Your task to perform on an android device: change the clock style Image 0: 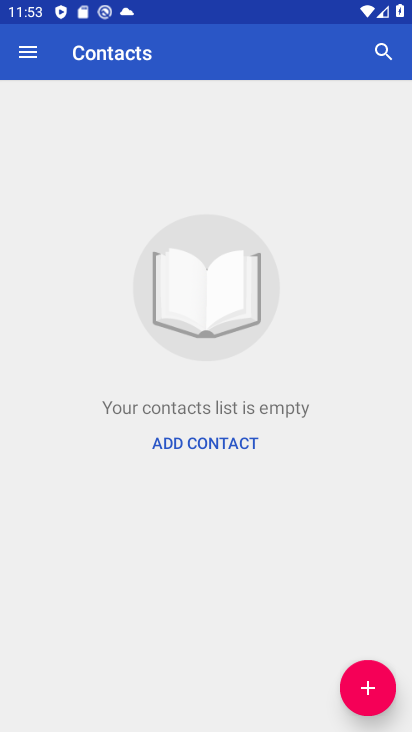
Step 0: press home button
Your task to perform on an android device: change the clock style Image 1: 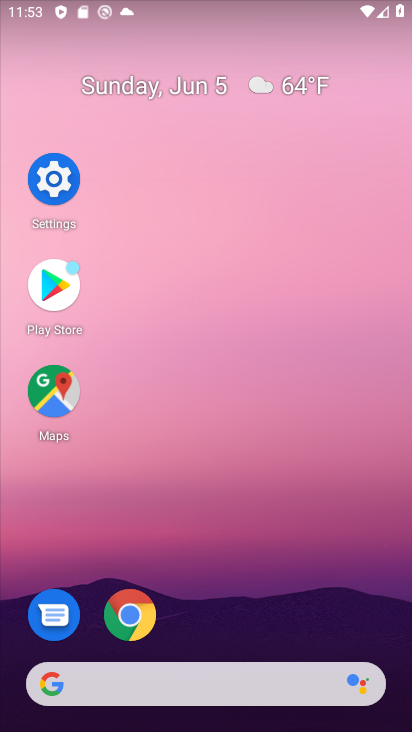
Step 1: drag from (224, 531) to (103, 37)
Your task to perform on an android device: change the clock style Image 2: 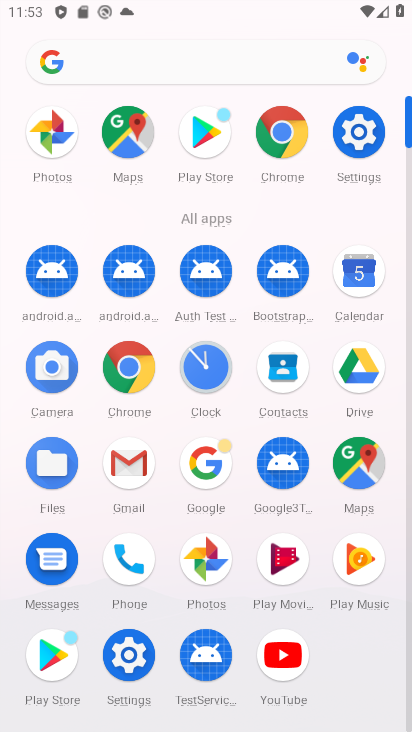
Step 2: drag from (218, 371) to (93, 165)
Your task to perform on an android device: change the clock style Image 3: 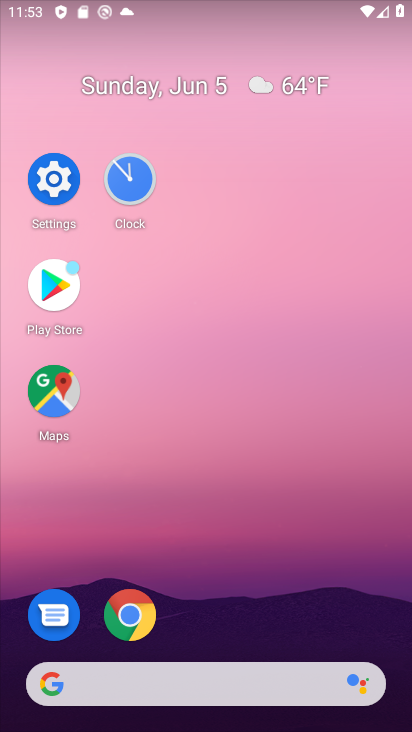
Step 3: click (133, 182)
Your task to perform on an android device: change the clock style Image 4: 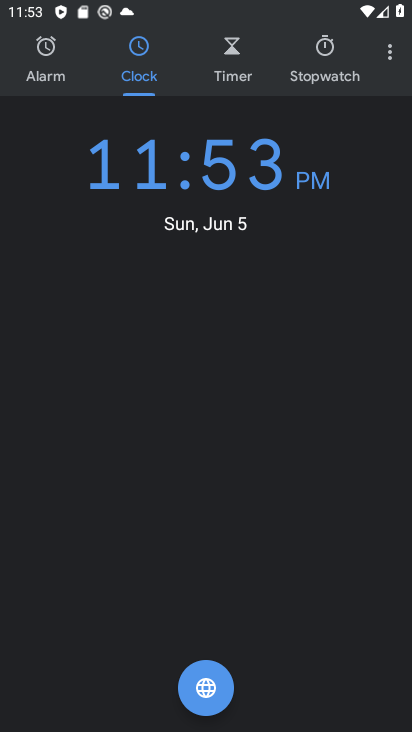
Step 4: click (390, 55)
Your task to perform on an android device: change the clock style Image 5: 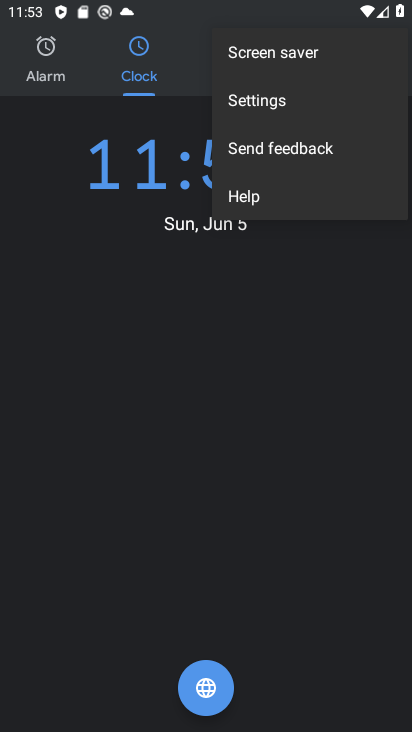
Step 5: click (298, 102)
Your task to perform on an android device: change the clock style Image 6: 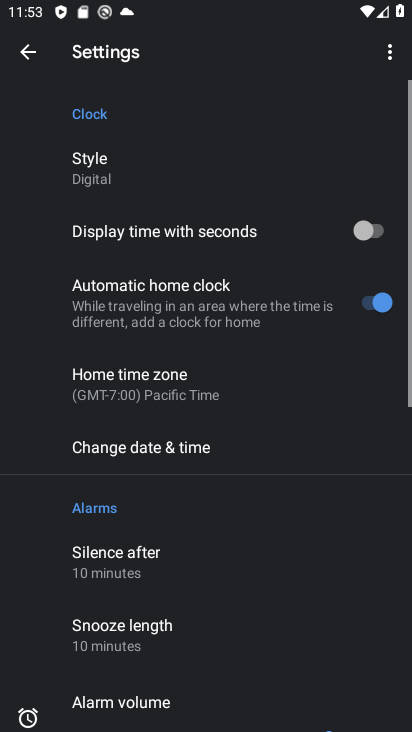
Step 6: click (107, 192)
Your task to perform on an android device: change the clock style Image 7: 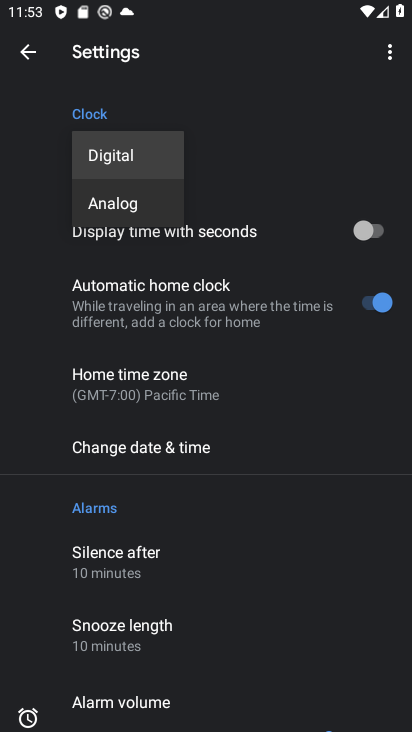
Step 7: click (117, 204)
Your task to perform on an android device: change the clock style Image 8: 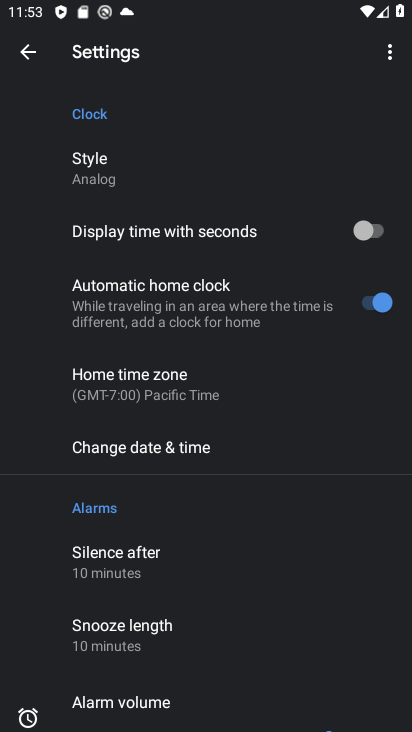
Step 8: task complete